Your task to perform on an android device: Open notification settings Image 0: 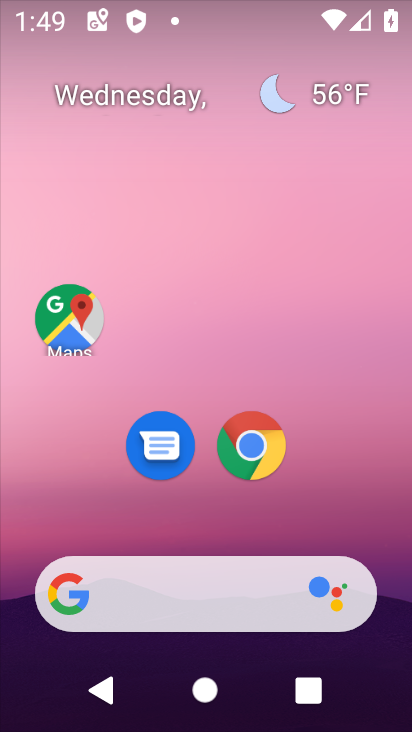
Step 0: drag from (257, 556) to (160, 0)
Your task to perform on an android device: Open notification settings Image 1: 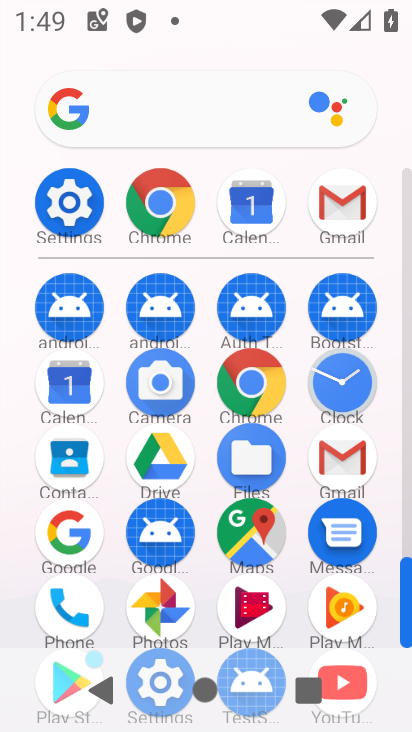
Step 1: click (92, 186)
Your task to perform on an android device: Open notification settings Image 2: 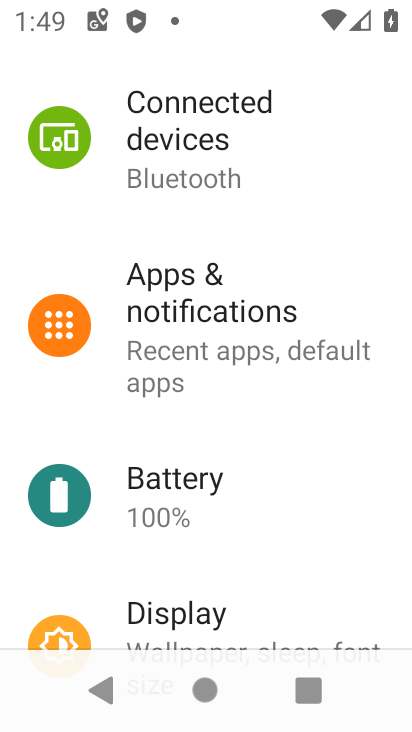
Step 2: click (200, 317)
Your task to perform on an android device: Open notification settings Image 3: 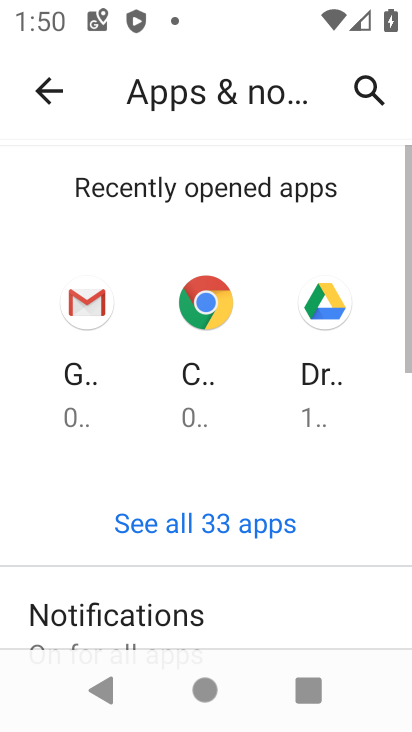
Step 3: drag from (241, 489) to (225, 181)
Your task to perform on an android device: Open notification settings Image 4: 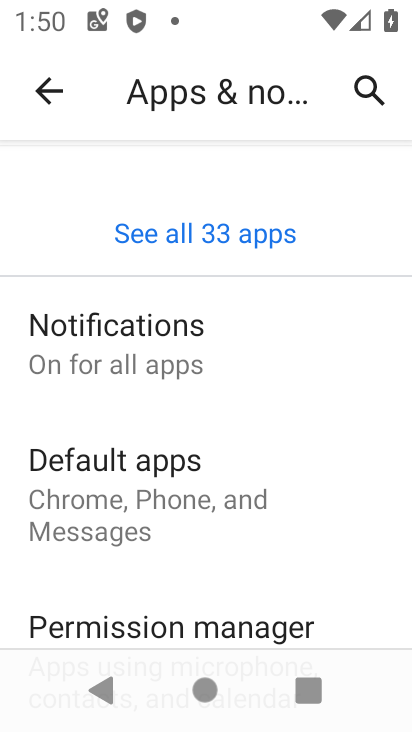
Step 4: click (146, 352)
Your task to perform on an android device: Open notification settings Image 5: 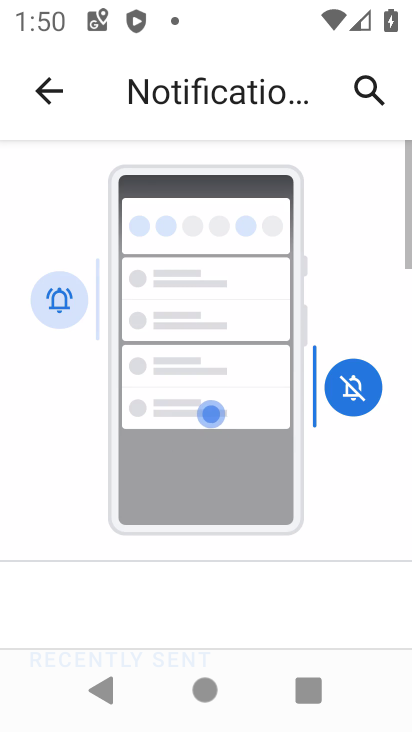
Step 5: task complete